Your task to perform on an android device: Search for Italian restaurants on Maps Image 0: 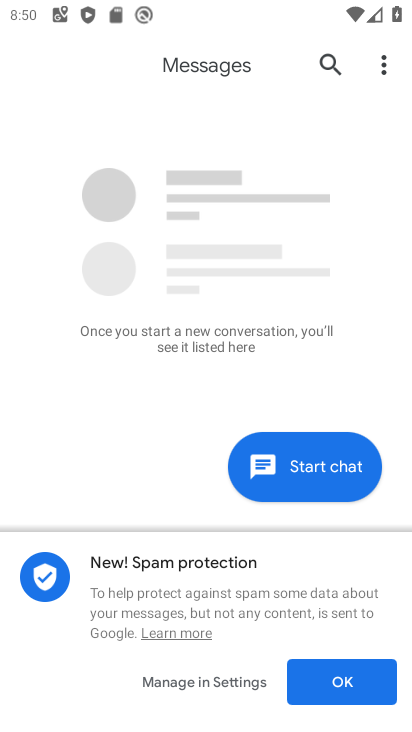
Step 0: press home button
Your task to perform on an android device: Search for Italian restaurants on Maps Image 1: 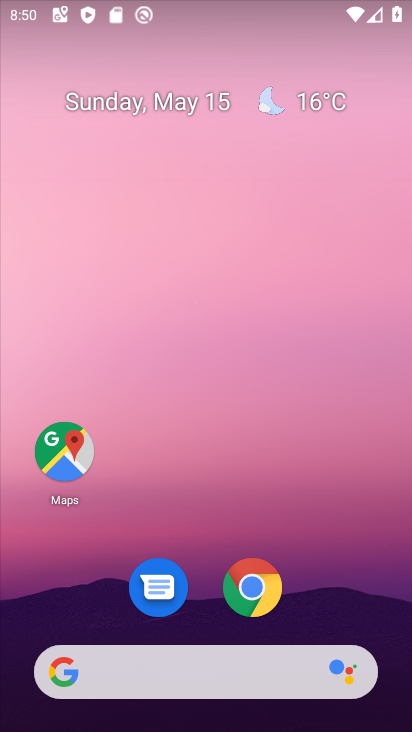
Step 1: click (56, 456)
Your task to perform on an android device: Search for Italian restaurants on Maps Image 2: 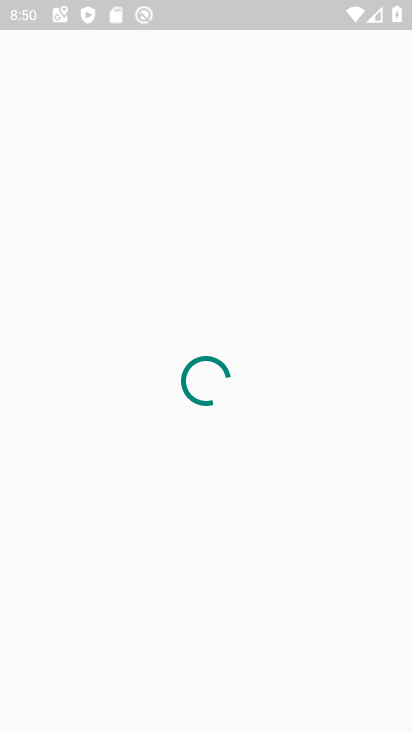
Step 2: task complete